Your task to perform on an android device: toggle data saver in the chrome app Image 0: 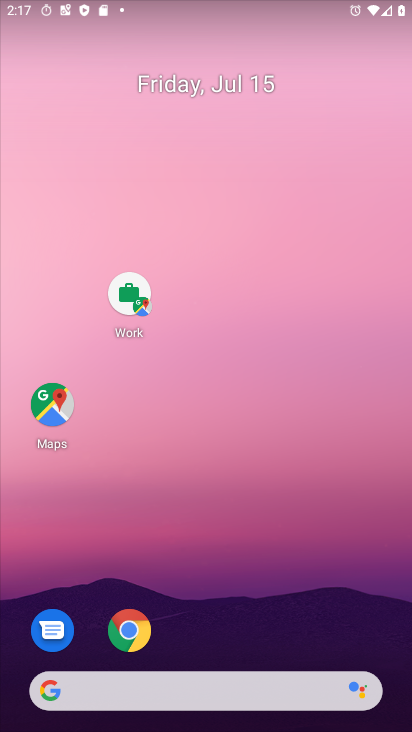
Step 0: click (122, 629)
Your task to perform on an android device: toggle data saver in the chrome app Image 1: 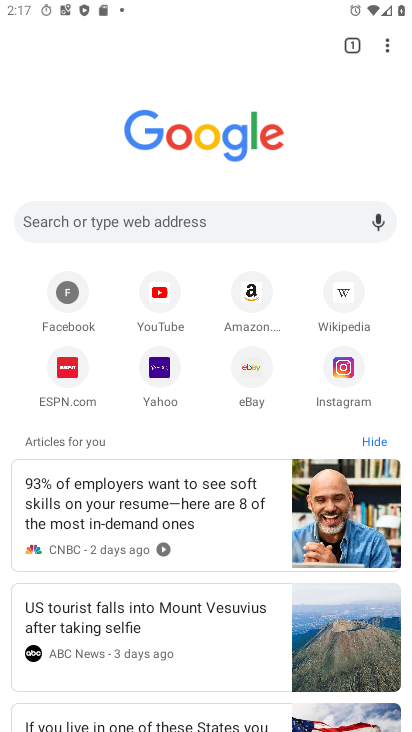
Step 1: click (387, 47)
Your task to perform on an android device: toggle data saver in the chrome app Image 2: 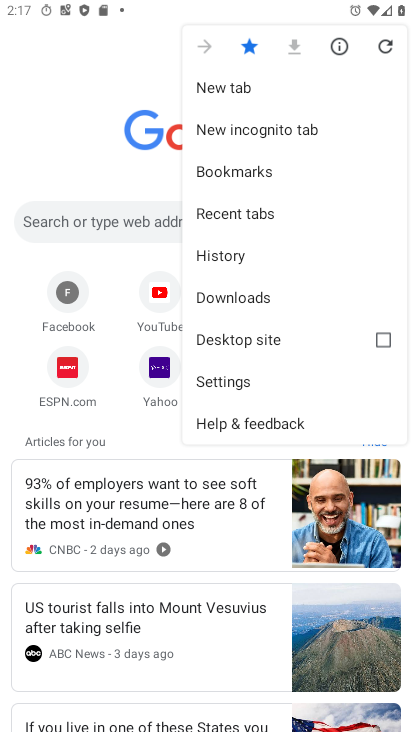
Step 2: click (239, 374)
Your task to perform on an android device: toggle data saver in the chrome app Image 3: 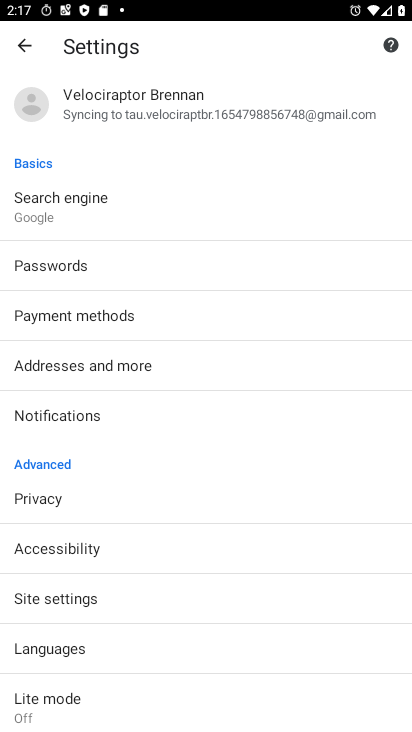
Step 3: click (63, 713)
Your task to perform on an android device: toggle data saver in the chrome app Image 4: 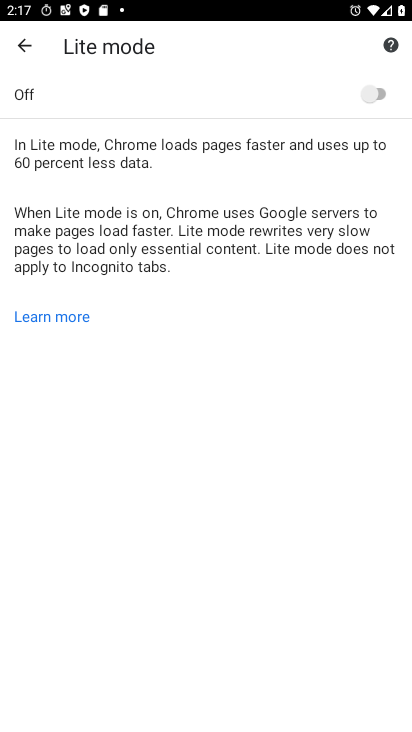
Step 4: click (385, 92)
Your task to perform on an android device: toggle data saver in the chrome app Image 5: 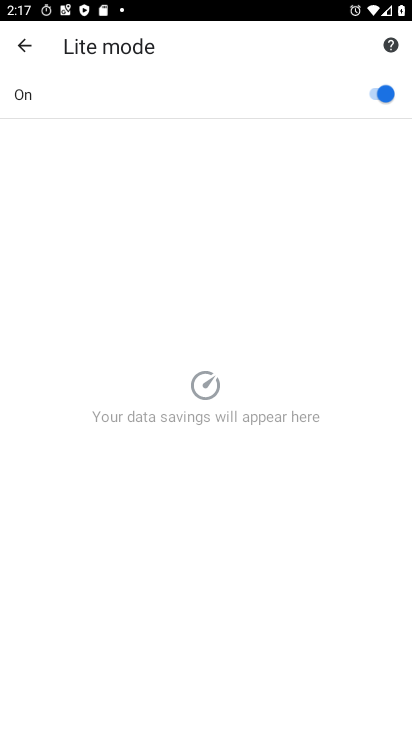
Step 5: task complete